Your task to perform on an android device: open chrome privacy settings Image 0: 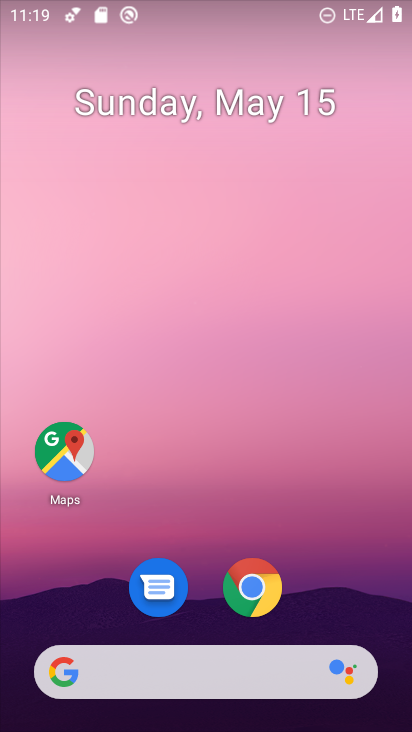
Step 0: click (244, 586)
Your task to perform on an android device: open chrome privacy settings Image 1: 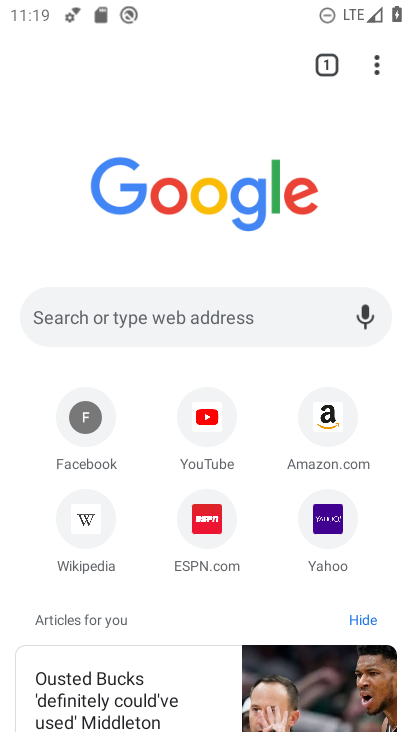
Step 1: drag from (372, 65) to (167, 556)
Your task to perform on an android device: open chrome privacy settings Image 2: 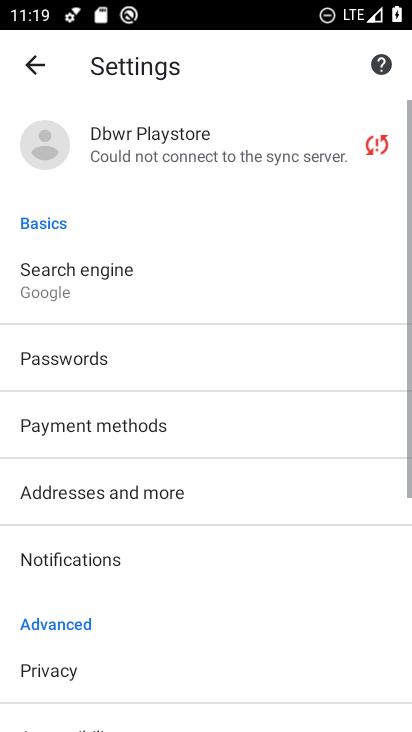
Step 2: drag from (113, 602) to (145, 401)
Your task to perform on an android device: open chrome privacy settings Image 3: 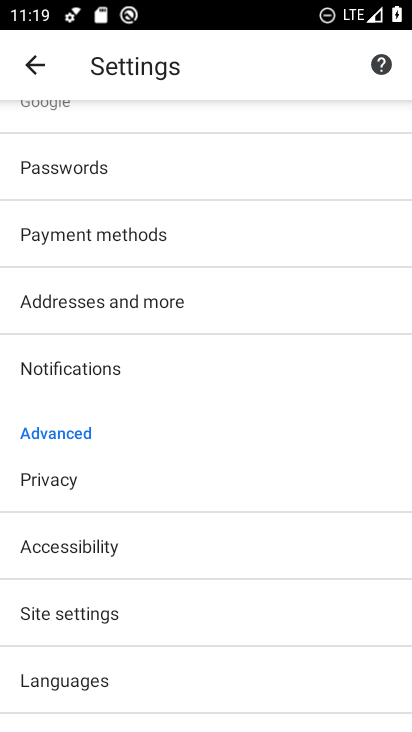
Step 3: click (102, 476)
Your task to perform on an android device: open chrome privacy settings Image 4: 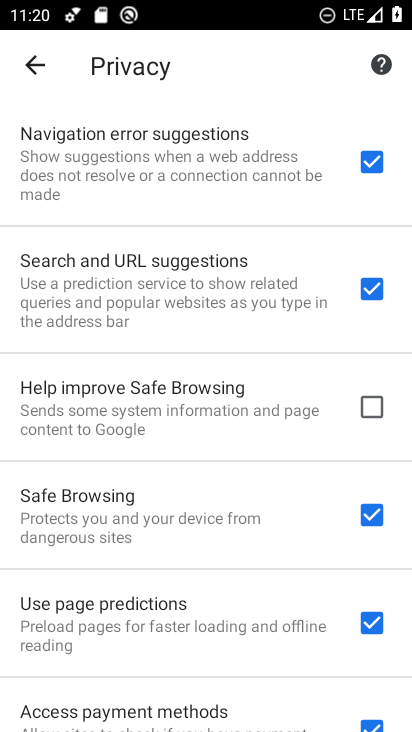
Step 4: task complete